Your task to perform on an android device: Open the calendar and show me this week's events? Image 0: 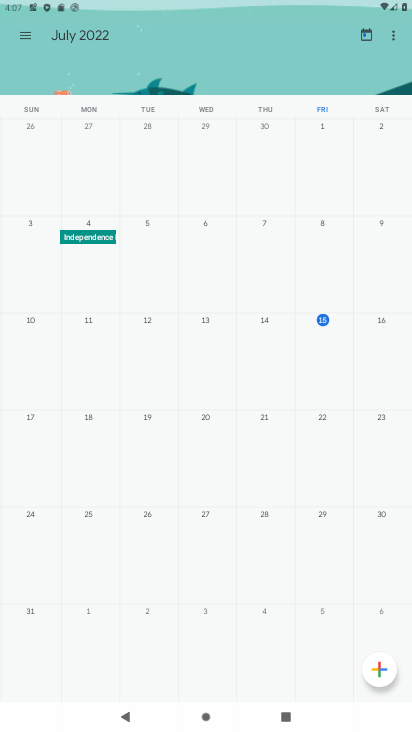
Step 0: press home button
Your task to perform on an android device: Open the calendar and show me this week's events? Image 1: 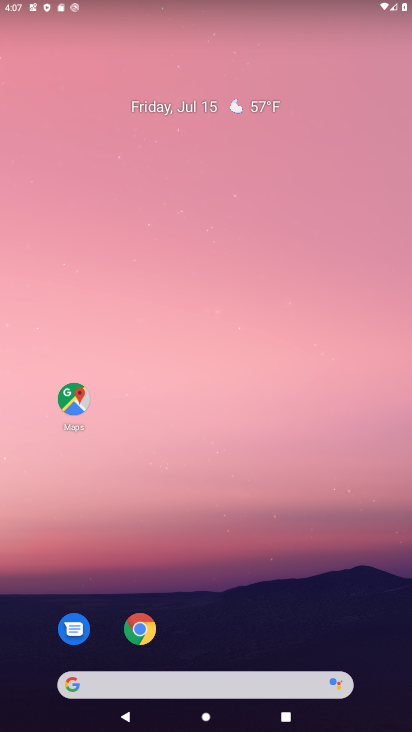
Step 1: drag from (241, 497) to (240, 16)
Your task to perform on an android device: Open the calendar and show me this week's events? Image 2: 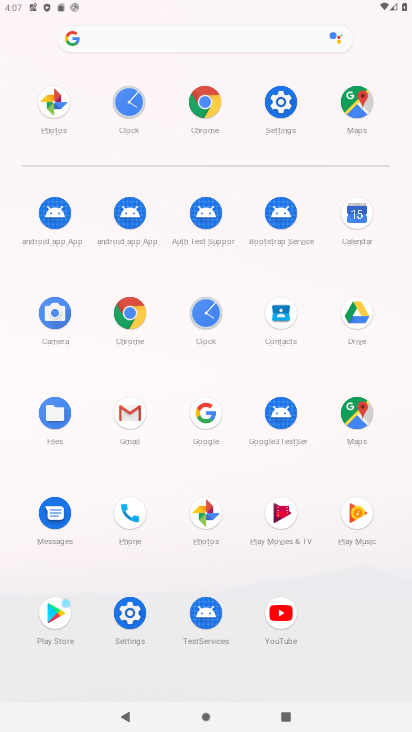
Step 2: click (356, 214)
Your task to perform on an android device: Open the calendar and show me this week's events? Image 3: 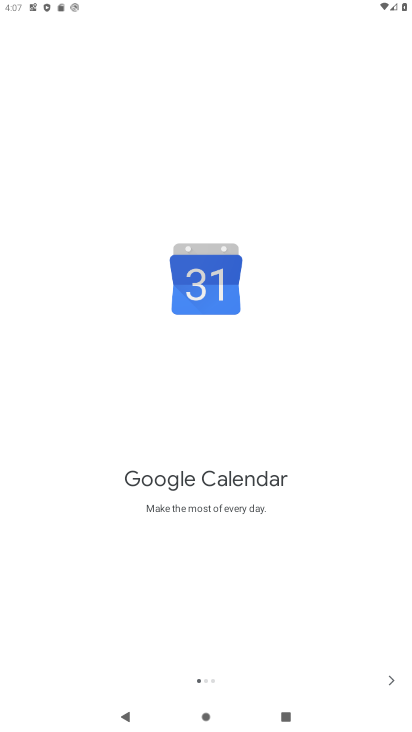
Step 3: click (395, 686)
Your task to perform on an android device: Open the calendar and show me this week's events? Image 4: 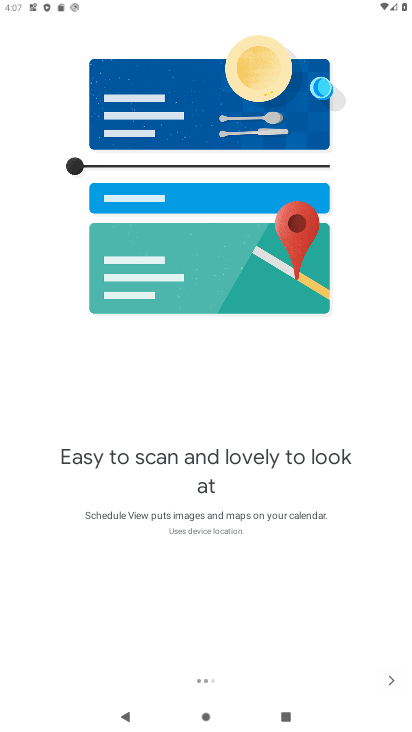
Step 4: click (395, 686)
Your task to perform on an android device: Open the calendar and show me this week's events? Image 5: 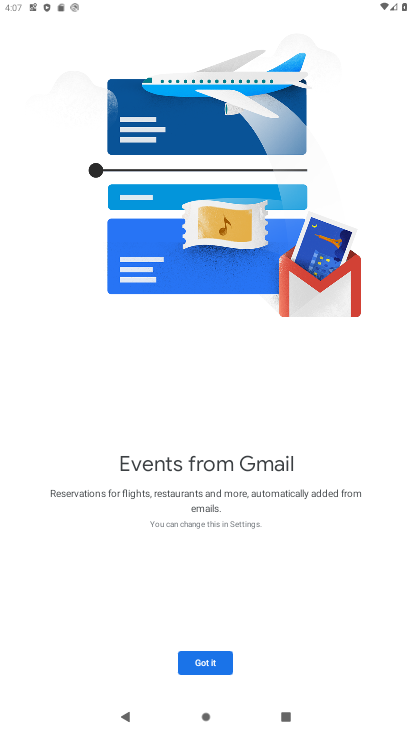
Step 5: click (395, 686)
Your task to perform on an android device: Open the calendar and show me this week's events? Image 6: 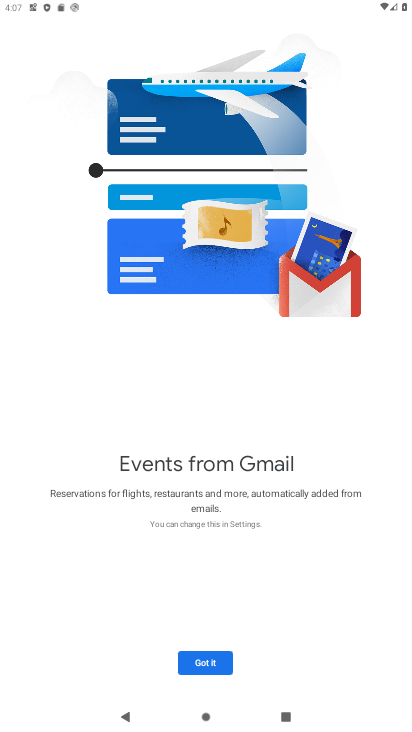
Step 6: click (390, 682)
Your task to perform on an android device: Open the calendar and show me this week's events? Image 7: 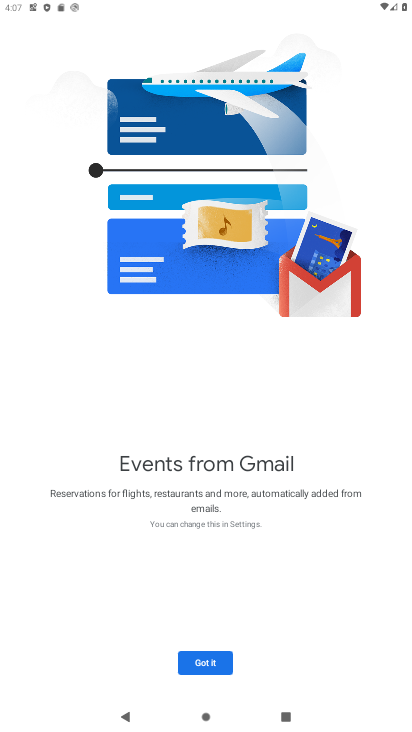
Step 7: click (219, 651)
Your task to perform on an android device: Open the calendar and show me this week's events? Image 8: 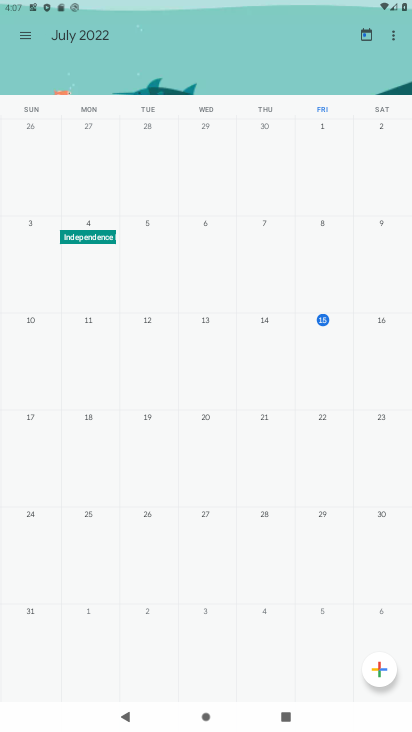
Step 8: click (21, 35)
Your task to perform on an android device: Open the calendar and show me this week's events? Image 9: 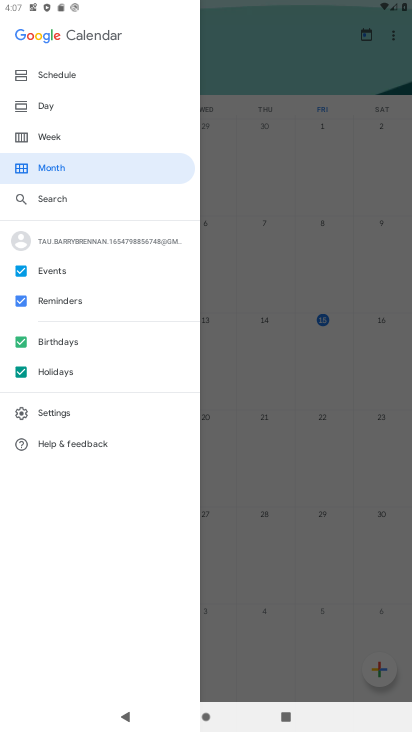
Step 9: click (64, 140)
Your task to perform on an android device: Open the calendar and show me this week's events? Image 10: 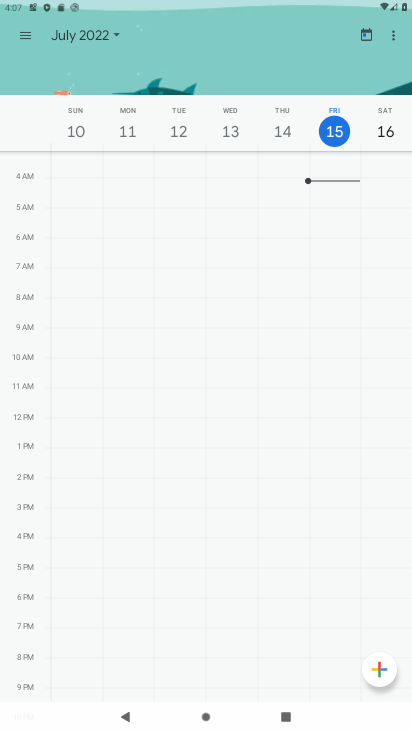
Step 10: task complete